Your task to perform on an android device: turn on translation in the chrome app Image 0: 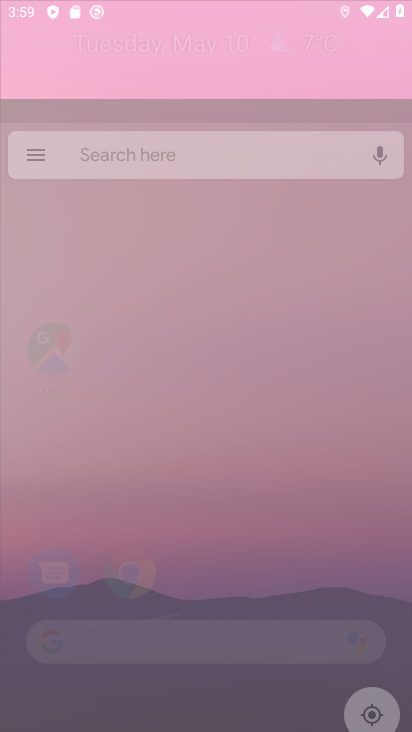
Step 0: click (273, 10)
Your task to perform on an android device: turn on translation in the chrome app Image 1: 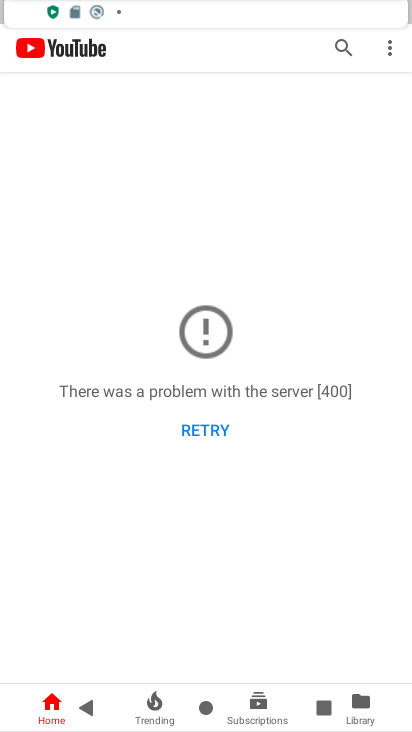
Step 1: press back button
Your task to perform on an android device: turn on translation in the chrome app Image 2: 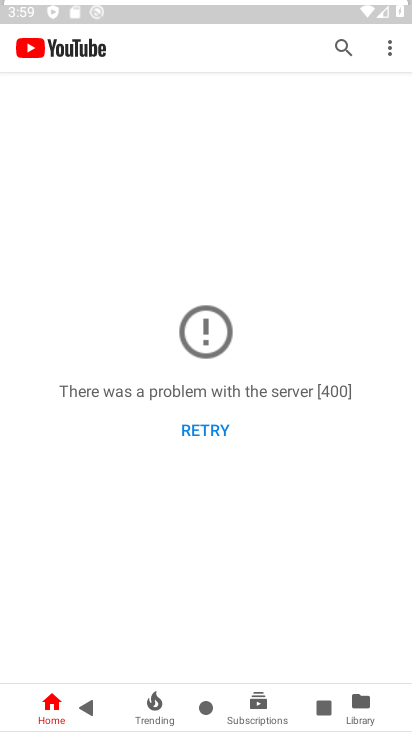
Step 2: click (273, 10)
Your task to perform on an android device: turn on translation in the chrome app Image 3: 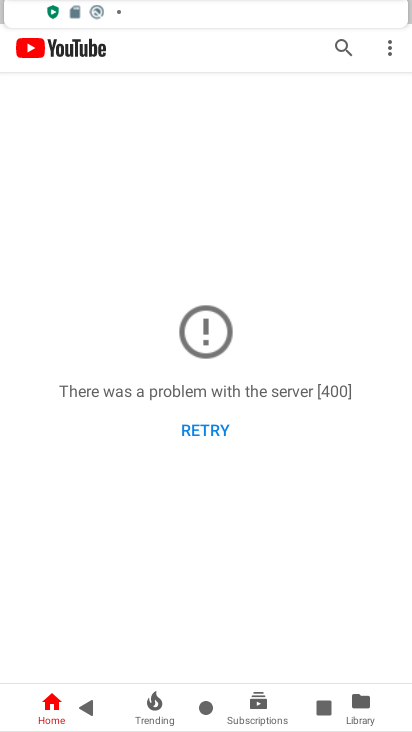
Step 3: press home button
Your task to perform on an android device: turn on translation in the chrome app Image 4: 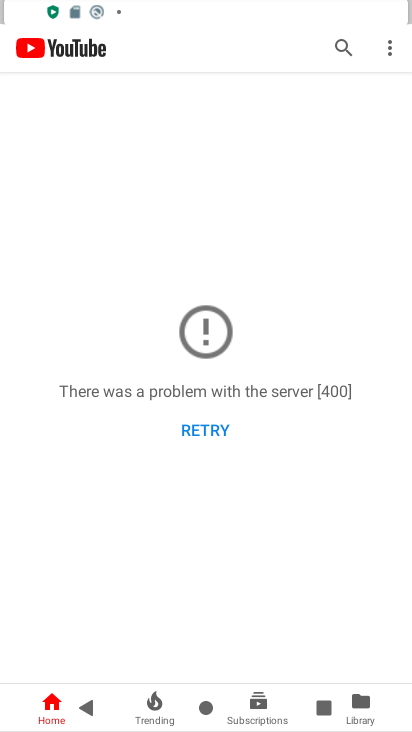
Step 4: drag from (273, 10) to (403, 160)
Your task to perform on an android device: turn on translation in the chrome app Image 5: 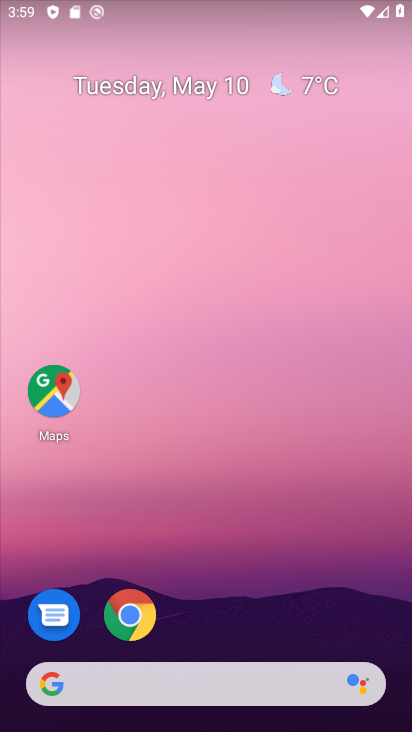
Step 5: drag from (240, 563) to (228, 39)
Your task to perform on an android device: turn on translation in the chrome app Image 6: 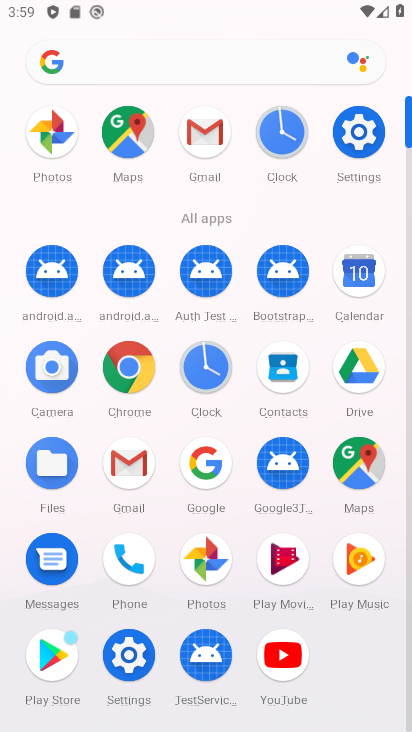
Step 6: drag from (11, 529) to (0, 244)
Your task to perform on an android device: turn on translation in the chrome app Image 7: 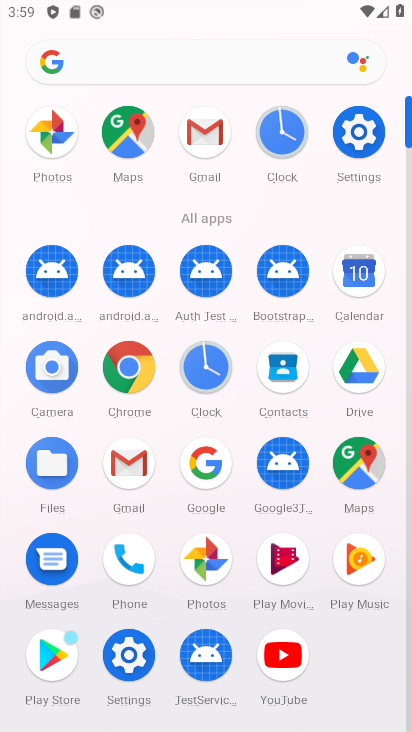
Step 7: click (127, 364)
Your task to perform on an android device: turn on translation in the chrome app Image 8: 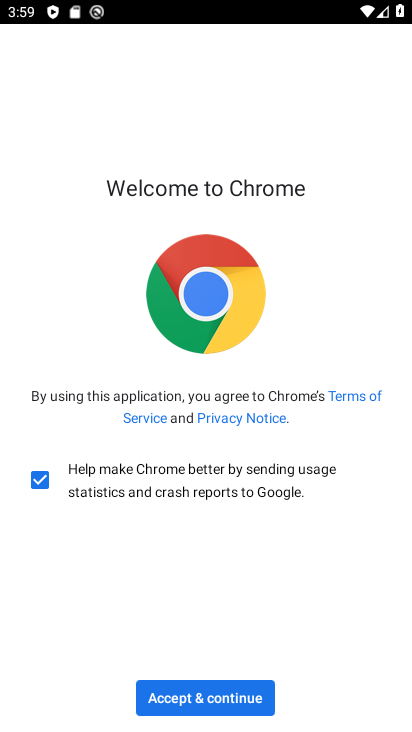
Step 8: click (215, 678)
Your task to perform on an android device: turn on translation in the chrome app Image 9: 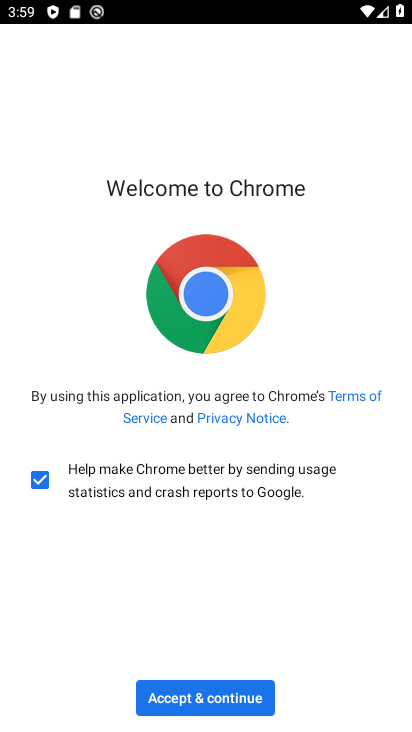
Step 9: click (215, 692)
Your task to perform on an android device: turn on translation in the chrome app Image 10: 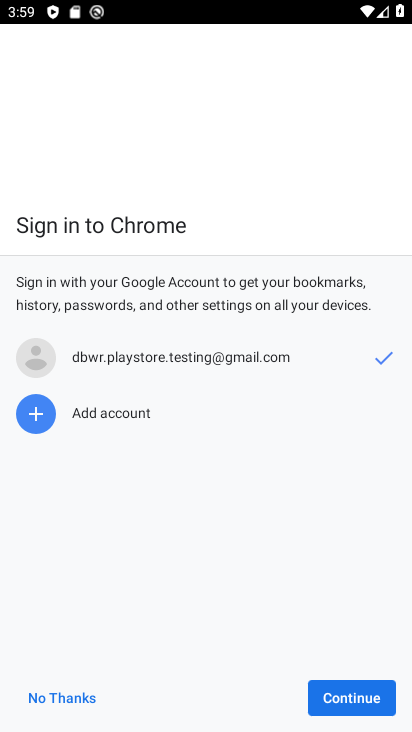
Step 10: click (375, 694)
Your task to perform on an android device: turn on translation in the chrome app Image 11: 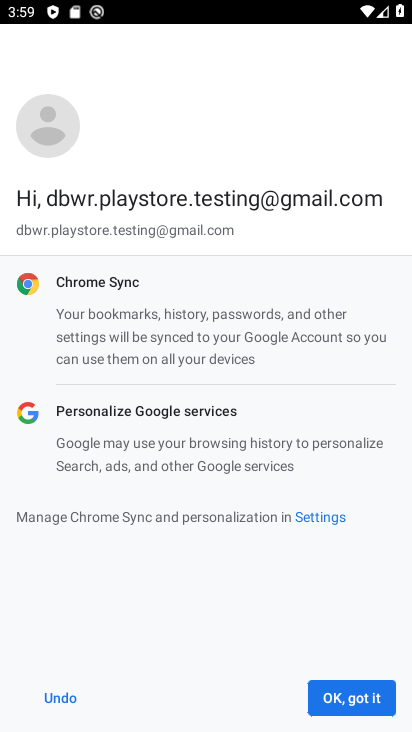
Step 11: click (340, 710)
Your task to perform on an android device: turn on translation in the chrome app Image 12: 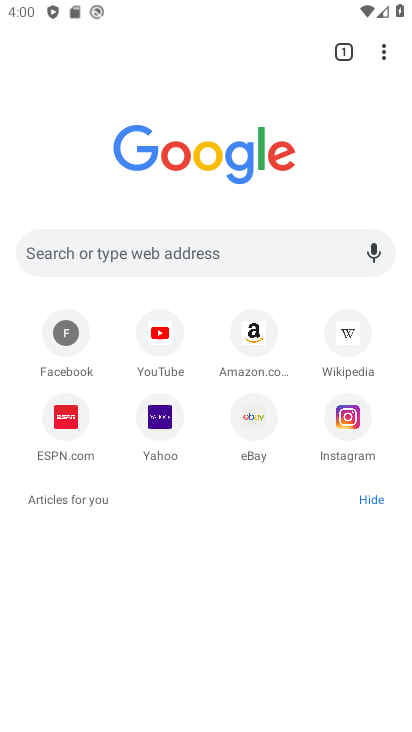
Step 12: drag from (386, 57) to (227, 493)
Your task to perform on an android device: turn on translation in the chrome app Image 13: 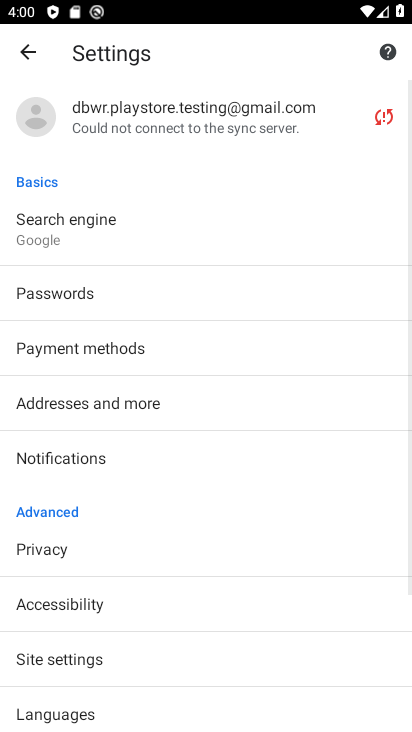
Step 13: drag from (181, 586) to (204, 218)
Your task to perform on an android device: turn on translation in the chrome app Image 14: 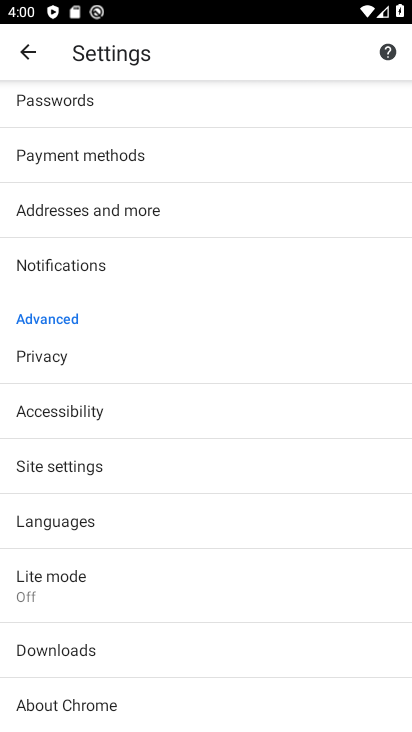
Step 14: click (92, 513)
Your task to perform on an android device: turn on translation in the chrome app Image 15: 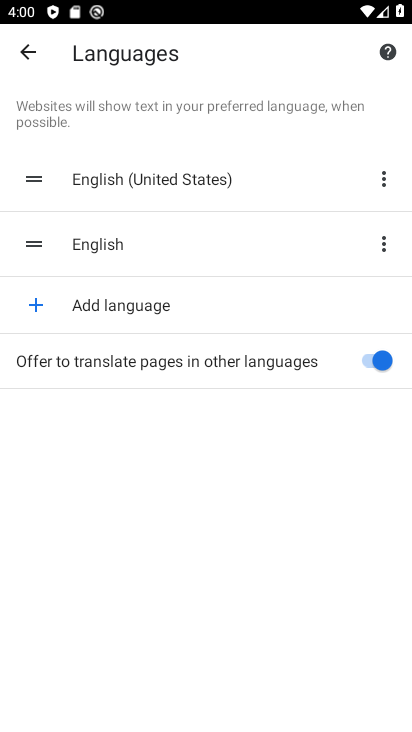
Step 15: task complete